Your task to perform on an android device: Open Wikipedia Image 0: 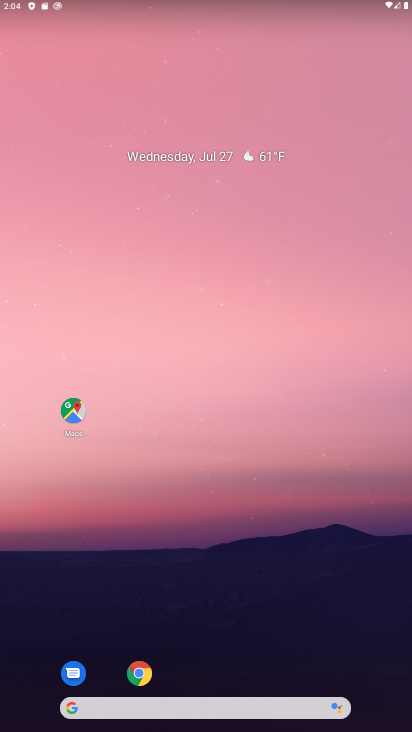
Step 0: click (144, 675)
Your task to perform on an android device: Open Wikipedia Image 1: 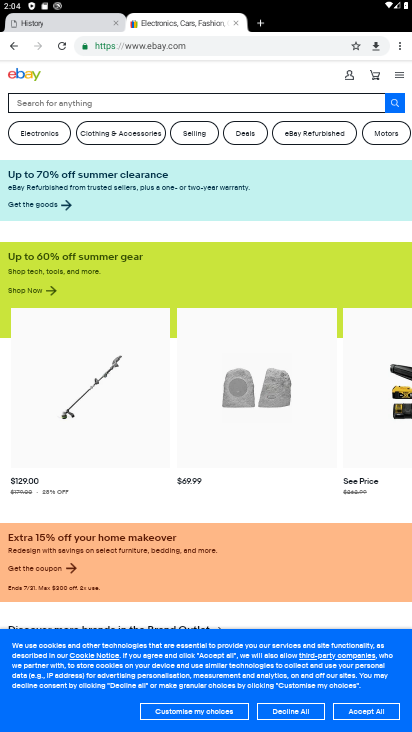
Step 1: click (265, 22)
Your task to perform on an android device: Open Wikipedia Image 2: 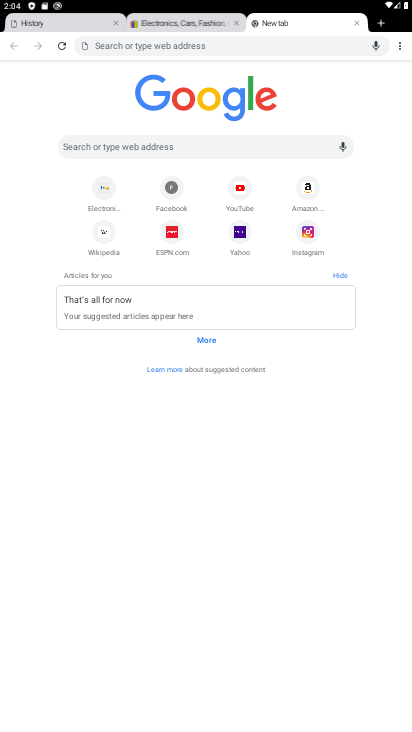
Step 2: click (95, 233)
Your task to perform on an android device: Open Wikipedia Image 3: 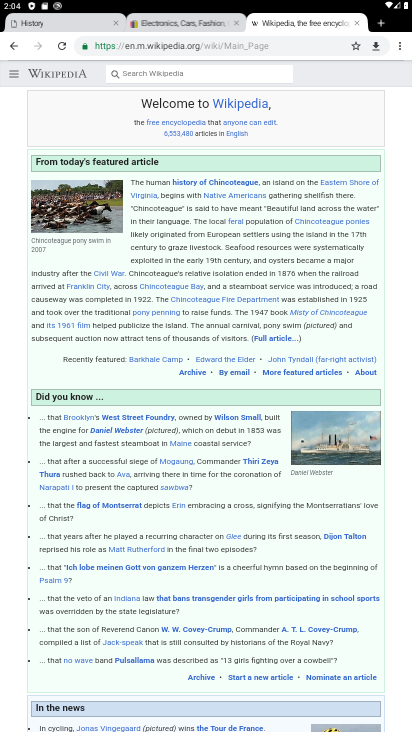
Step 3: task complete